Your task to perform on an android device: Empty the shopping cart on newegg. Add "bose quietcomfort 35" to the cart on newegg, then select checkout. Image 0: 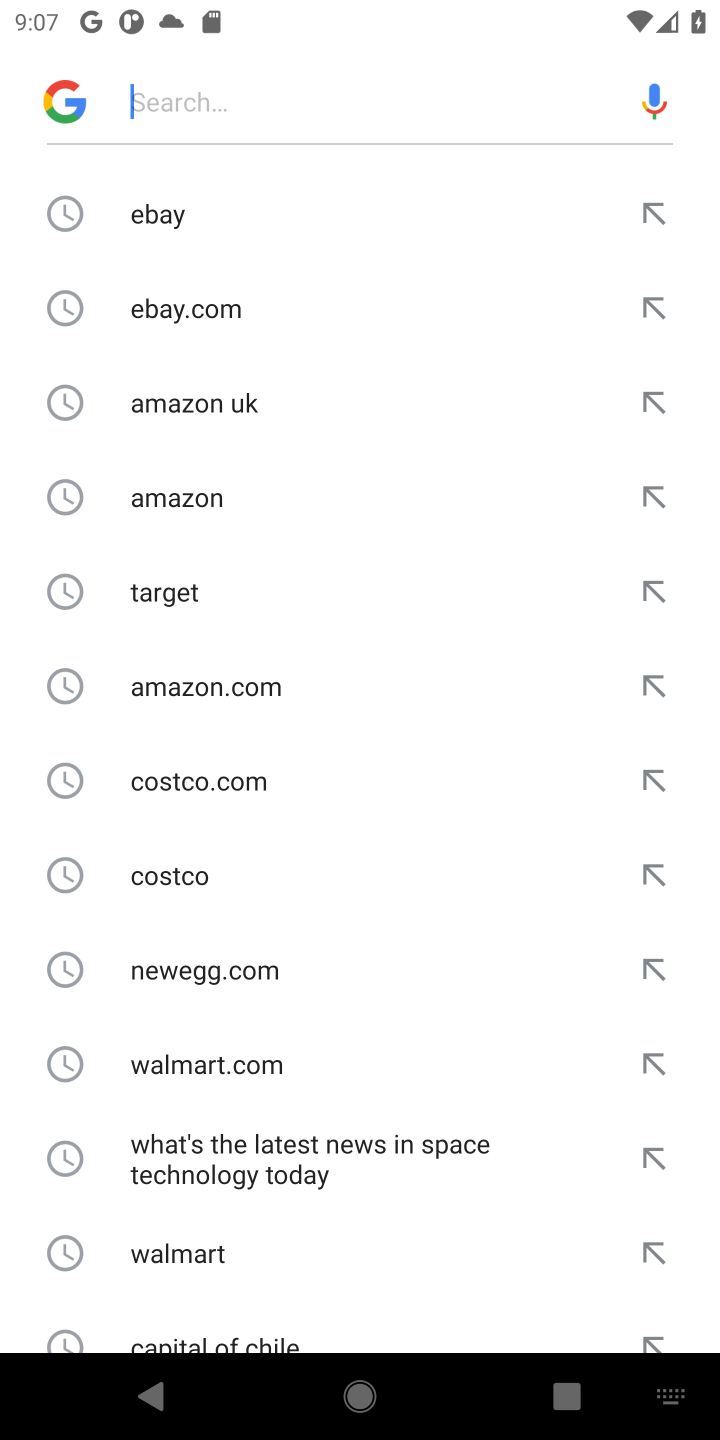
Step 0: click (208, 970)
Your task to perform on an android device: Empty the shopping cart on newegg. Add "bose quietcomfort 35" to the cart on newegg, then select checkout. Image 1: 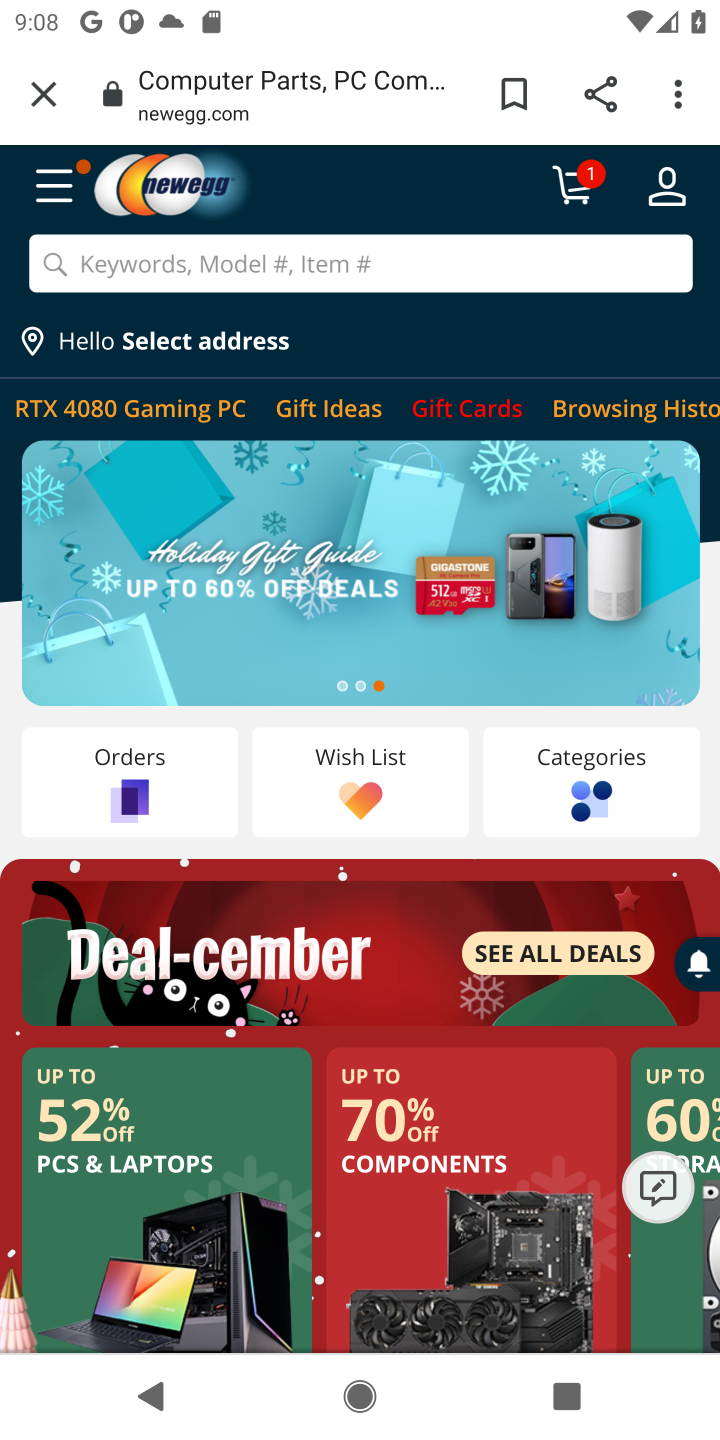
Step 1: click (571, 186)
Your task to perform on an android device: Empty the shopping cart on newegg. Add "bose quietcomfort 35" to the cart on newegg, then select checkout. Image 2: 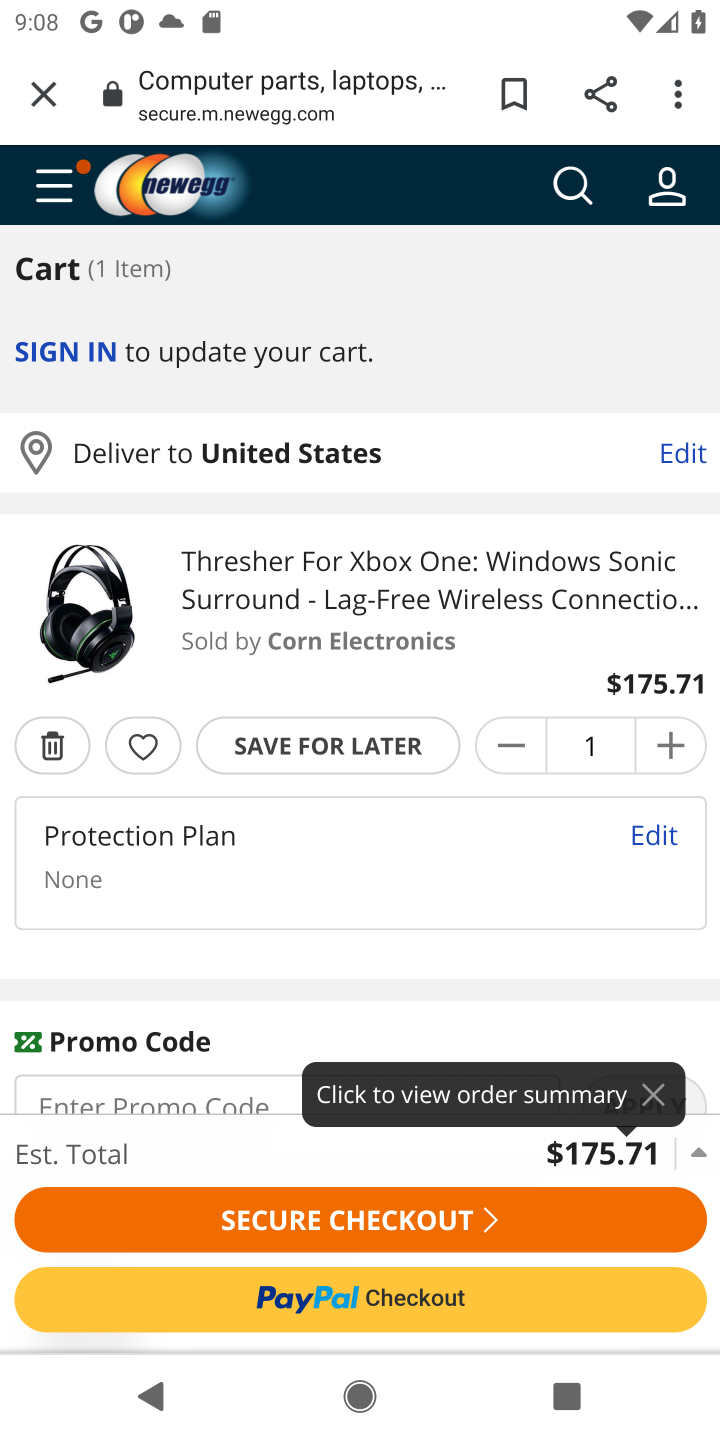
Step 2: click (53, 748)
Your task to perform on an android device: Empty the shopping cart on newegg. Add "bose quietcomfort 35" to the cart on newegg, then select checkout. Image 3: 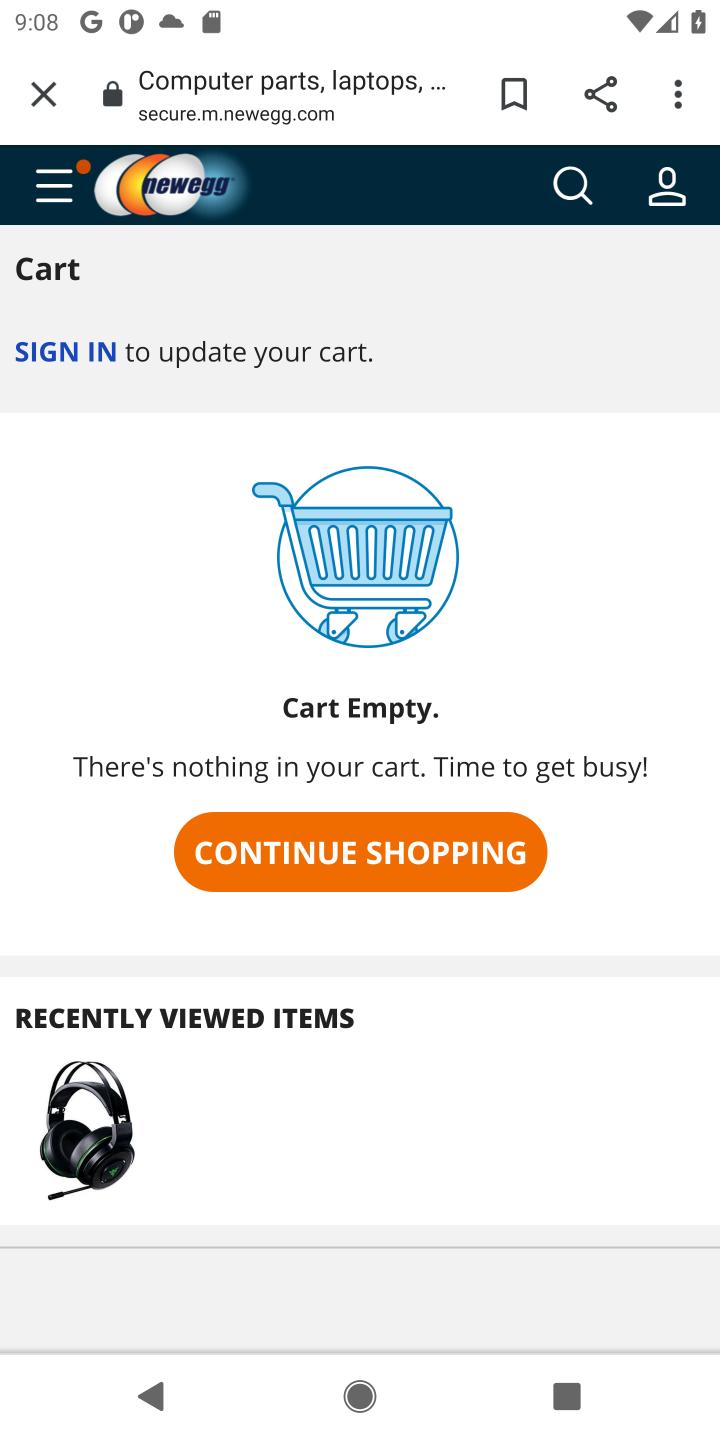
Step 3: click (575, 189)
Your task to perform on an android device: Empty the shopping cart on newegg. Add "bose quietcomfort 35" to the cart on newegg, then select checkout. Image 4: 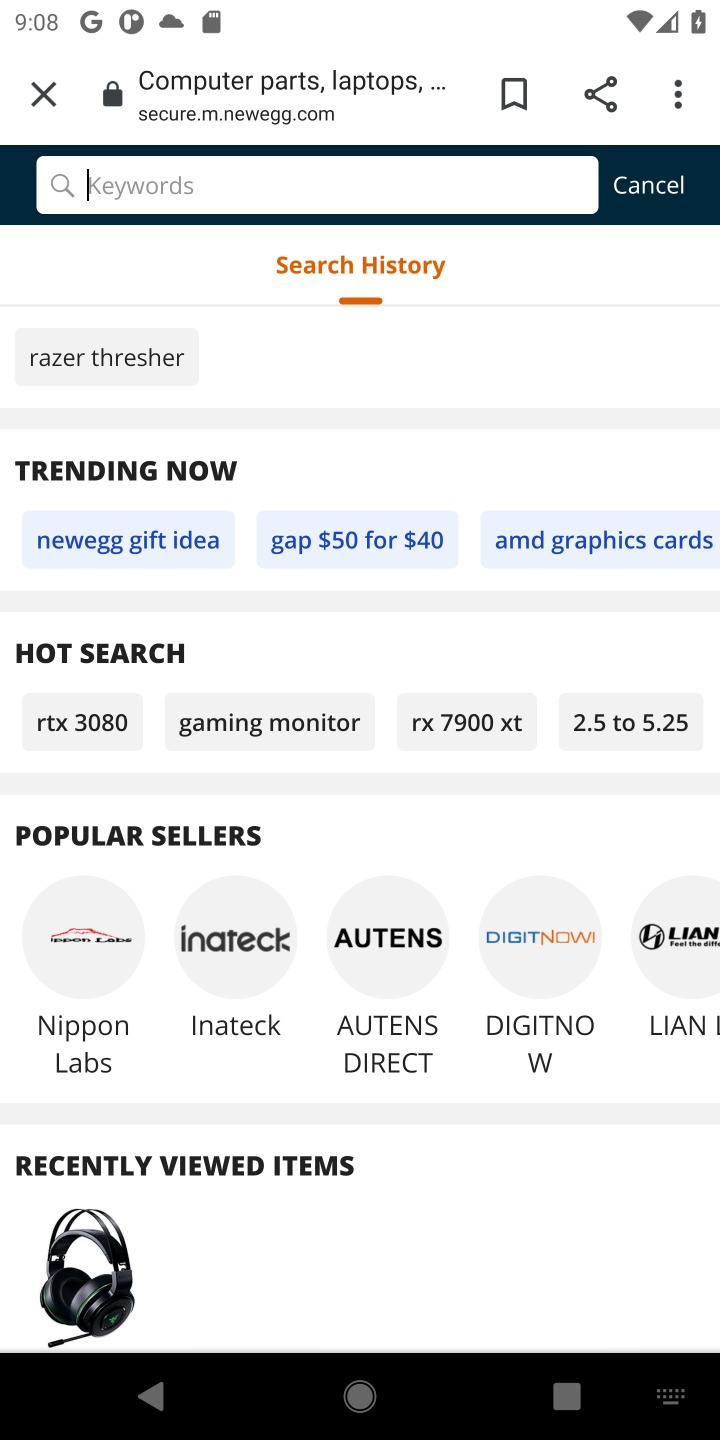
Step 4: type "bose quietcomfort 35"
Your task to perform on an android device: Empty the shopping cart on newegg. Add "bose quietcomfort 35" to the cart on newegg, then select checkout. Image 5: 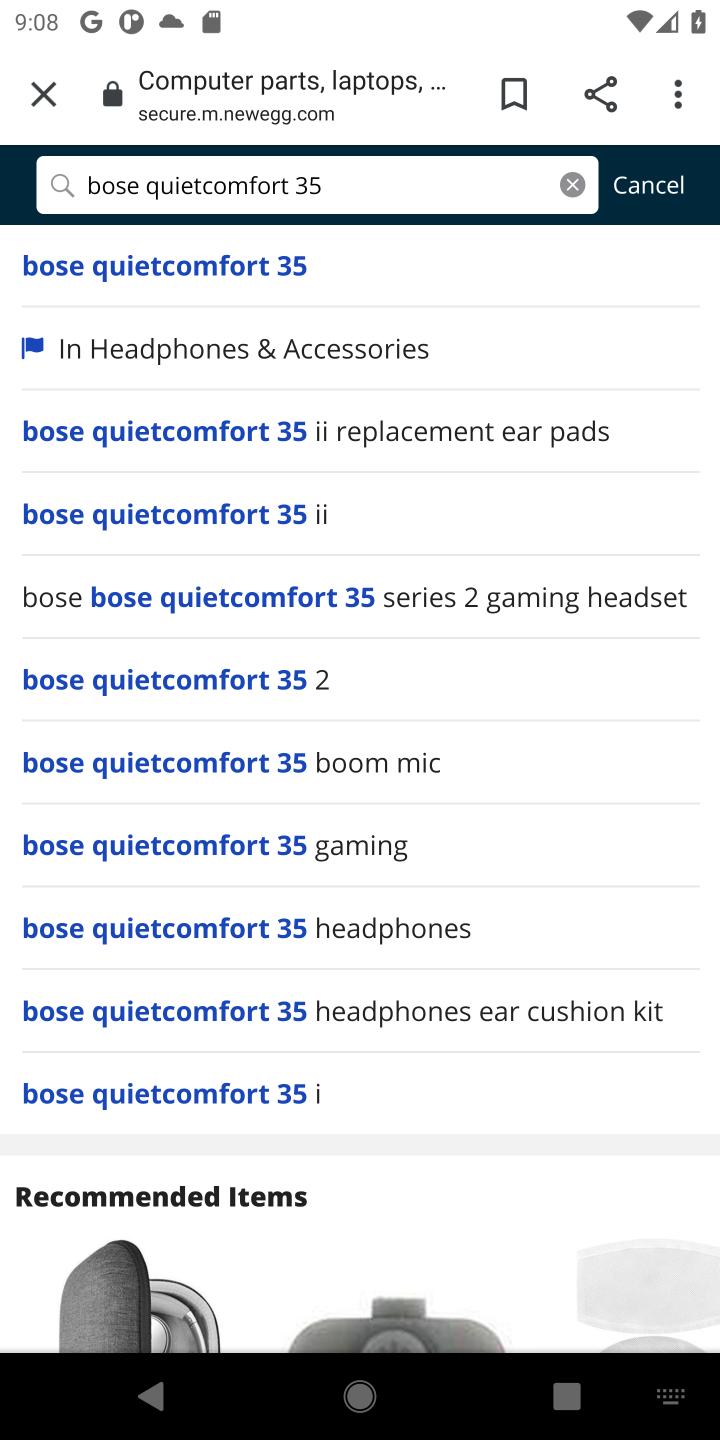
Step 5: click (166, 261)
Your task to perform on an android device: Empty the shopping cart on newegg. Add "bose quietcomfort 35" to the cart on newegg, then select checkout. Image 6: 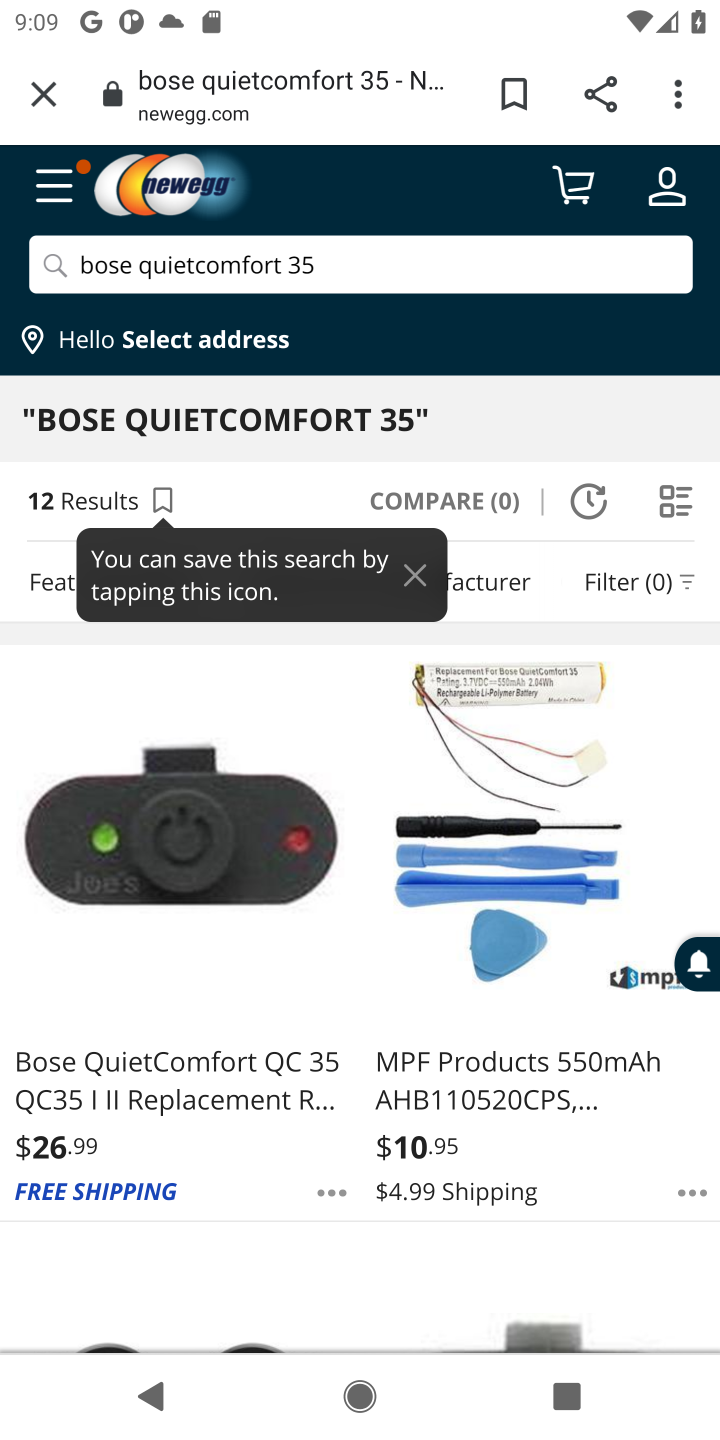
Step 6: click (215, 1078)
Your task to perform on an android device: Empty the shopping cart on newegg. Add "bose quietcomfort 35" to the cart on newegg, then select checkout. Image 7: 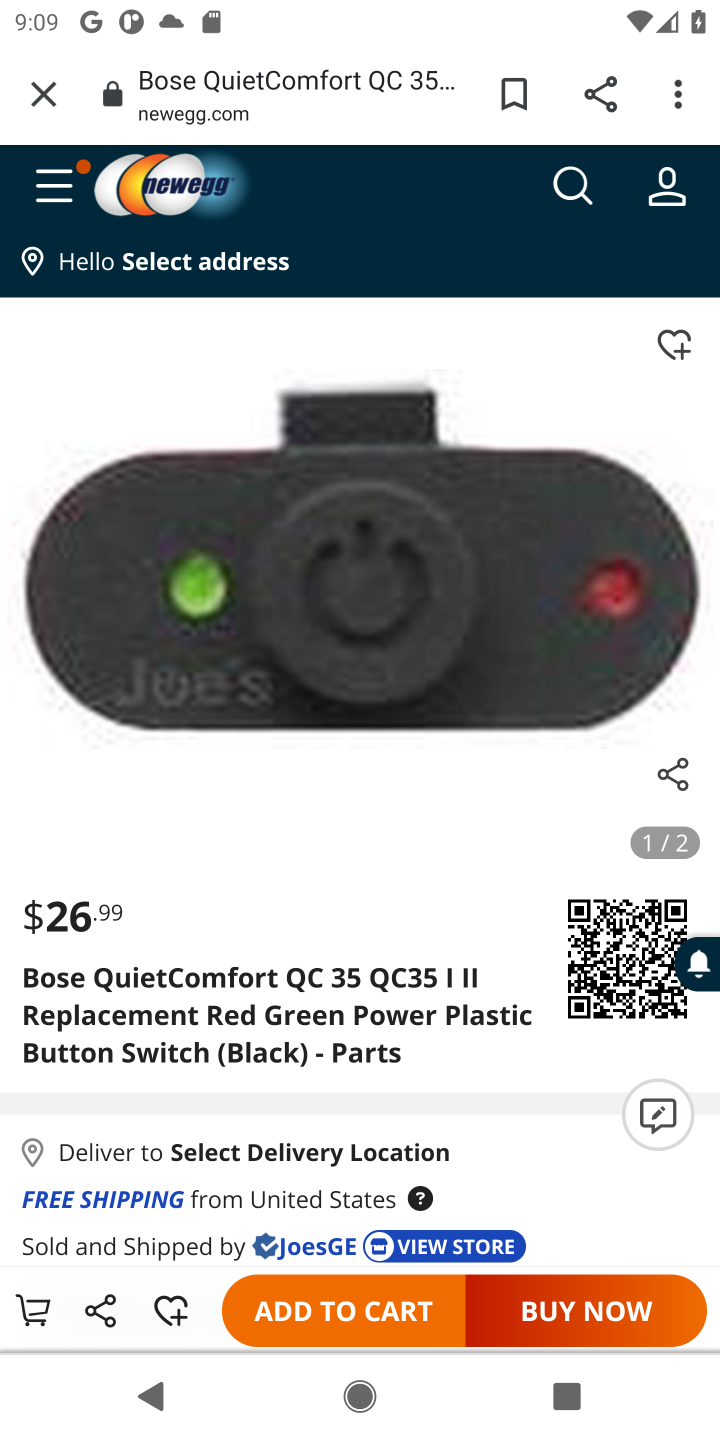
Step 7: click (299, 1315)
Your task to perform on an android device: Empty the shopping cart on newegg. Add "bose quietcomfort 35" to the cart on newegg, then select checkout. Image 8: 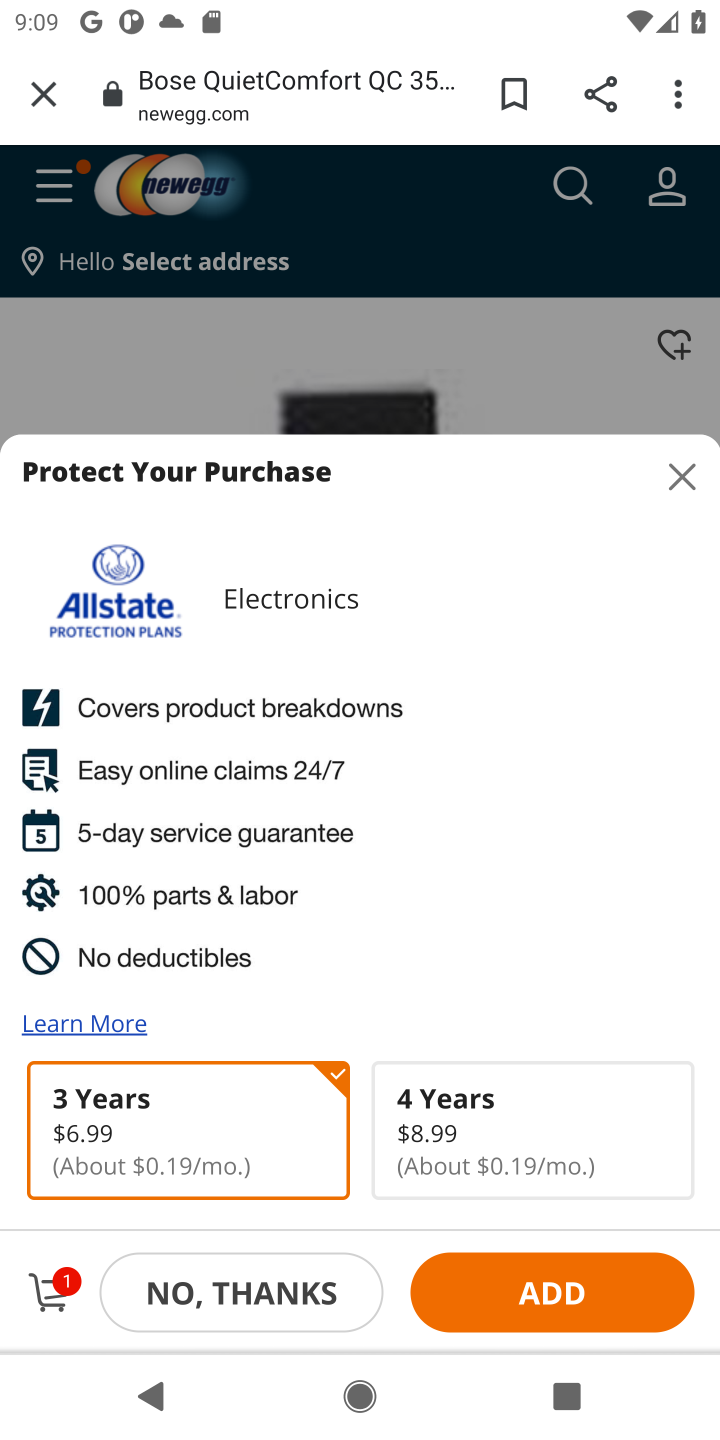
Step 8: click (47, 1290)
Your task to perform on an android device: Empty the shopping cart on newegg. Add "bose quietcomfort 35" to the cart on newegg, then select checkout. Image 9: 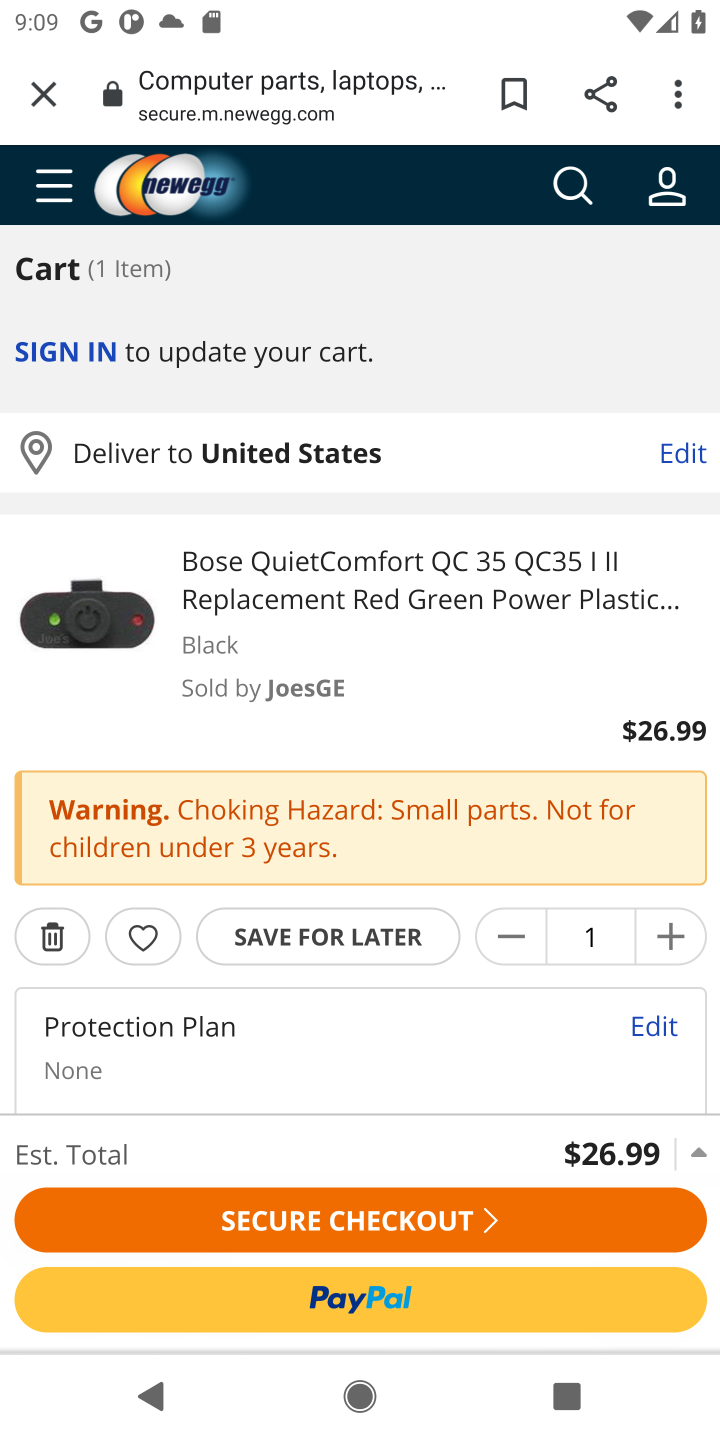
Step 9: click (211, 1267)
Your task to perform on an android device: Empty the shopping cart on newegg. Add "bose quietcomfort 35" to the cart on newegg, then select checkout. Image 10: 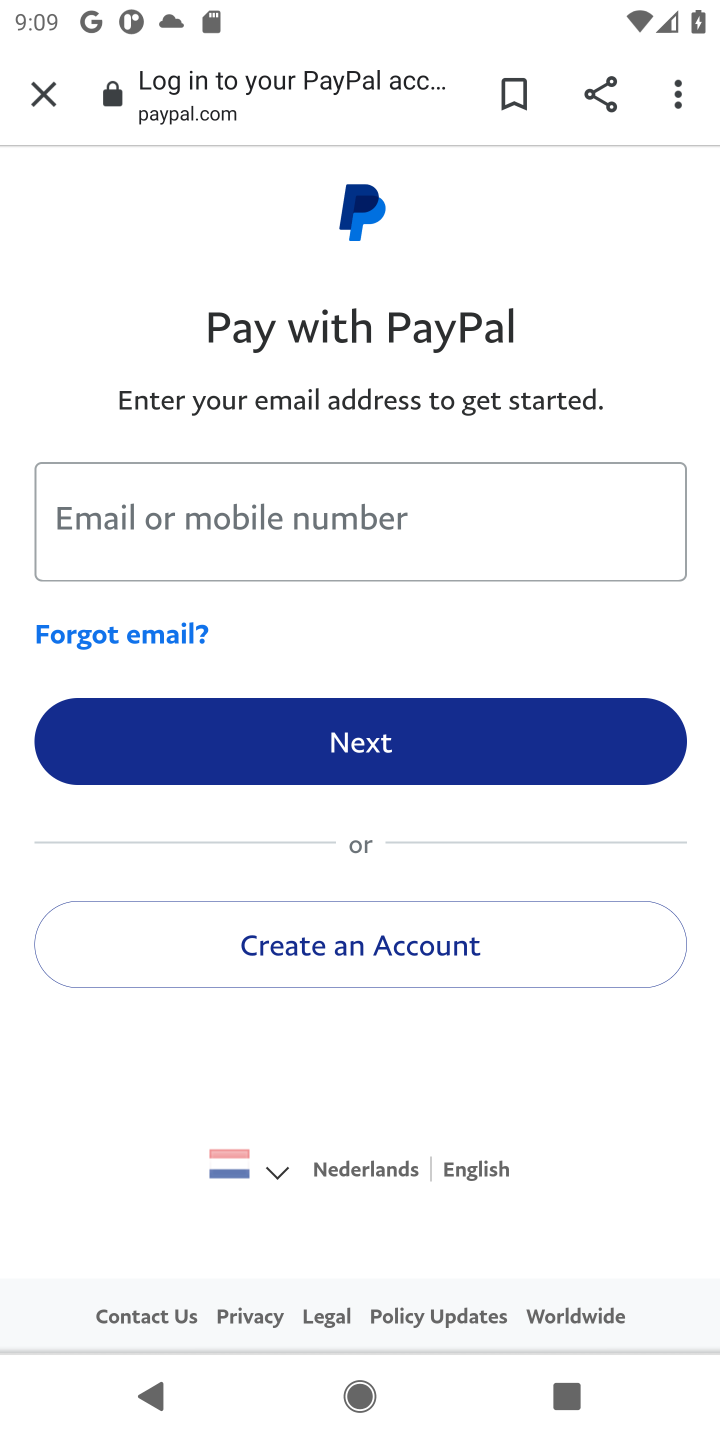
Step 10: task complete